Your task to perform on an android device: uninstall "The Home Depot" Image 0: 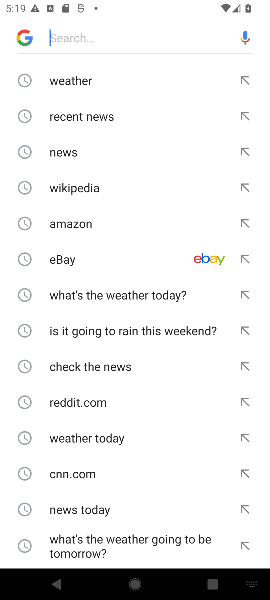
Step 0: press home button
Your task to perform on an android device: uninstall "The Home Depot" Image 1: 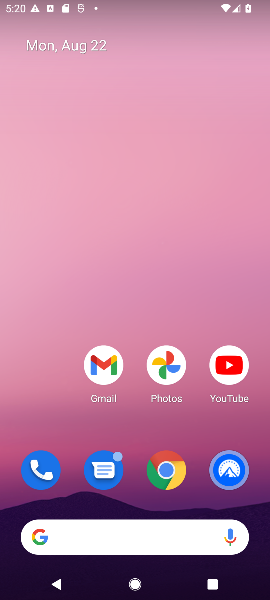
Step 1: drag from (138, 498) to (210, 99)
Your task to perform on an android device: uninstall "The Home Depot" Image 2: 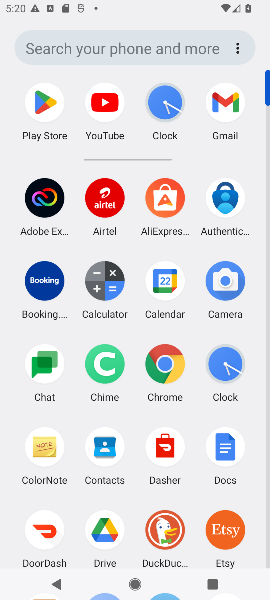
Step 2: click (36, 98)
Your task to perform on an android device: uninstall "The Home Depot" Image 3: 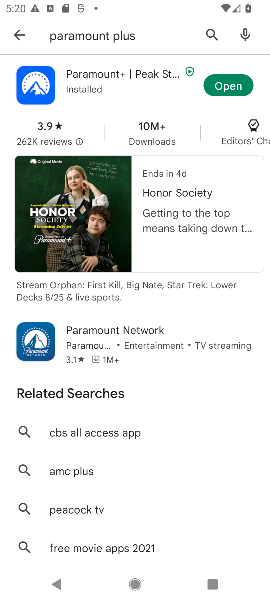
Step 3: click (26, 29)
Your task to perform on an android device: uninstall "The Home Depot" Image 4: 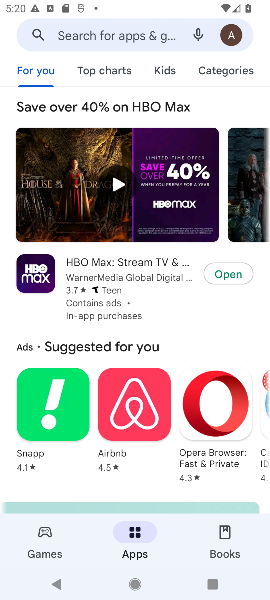
Step 4: click (112, 32)
Your task to perform on an android device: uninstall "The Home Depot" Image 5: 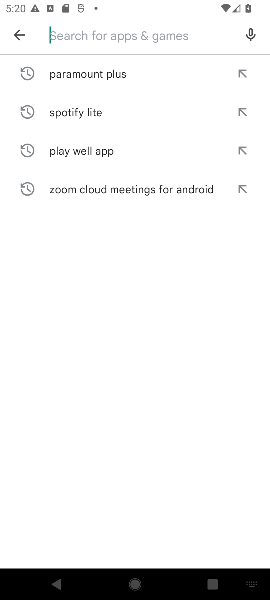
Step 5: type "The Home Depot "
Your task to perform on an android device: uninstall "The Home Depot" Image 6: 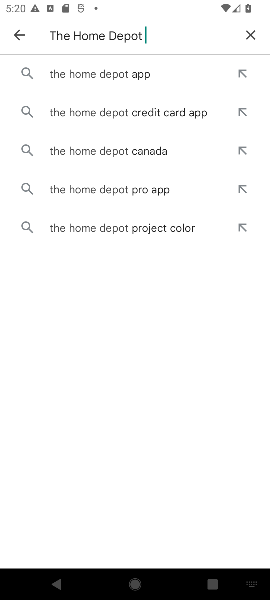
Step 6: click (102, 77)
Your task to perform on an android device: uninstall "The Home Depot" Image 7: 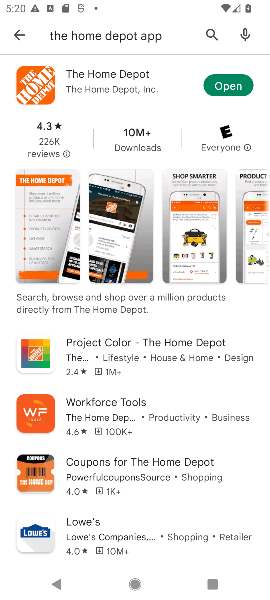
Step 7: click (217, 87)
Your task to perform on an android device: uninstall "The Home Depot" Image 8: 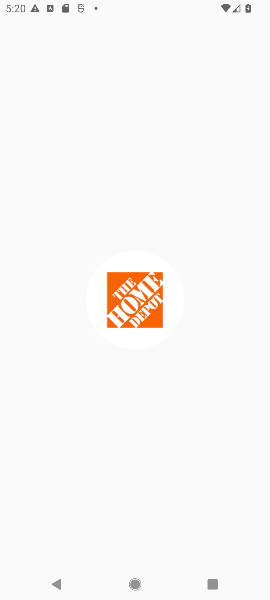
Step 8: press back button
Your task to perform on an android device: uninstall "The Home Depot" Image 9: 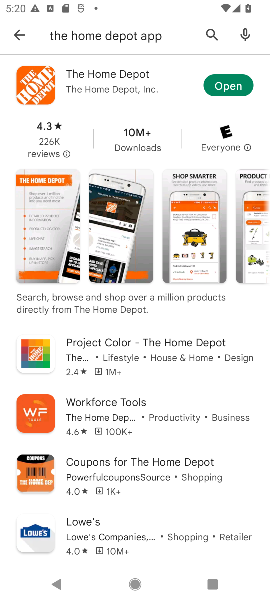
Step 9: click (67, 67)
Your task to perform on an android device: uninstall "The Home Depot" Image 10: 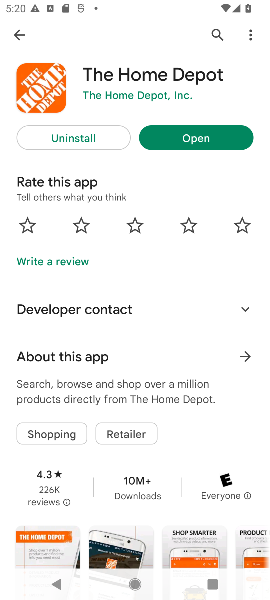
Step 10: click (72, 136)
Your task to perform on an android device: uninstall "The Home Depot" Image 11: 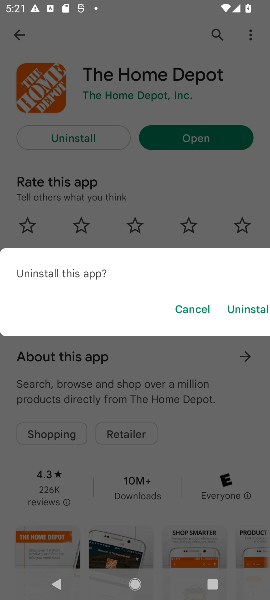
Step 11: click (249, 315)
Your task to perform on an android device: uninstall "The Home Depot" Image 12: 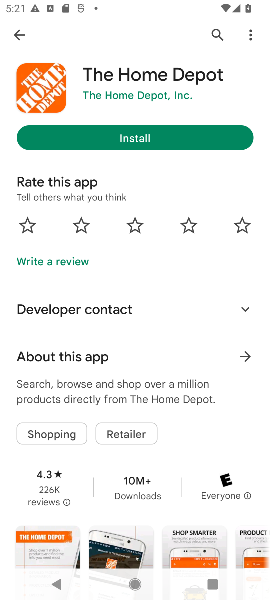
Step 12: task complete